Your task to perform on an android device: Clear the cart on walmart.com. Search for "jbl flip 4" on walmart.com, select the first entry, add it to the cart, then select checkout. Image 0: 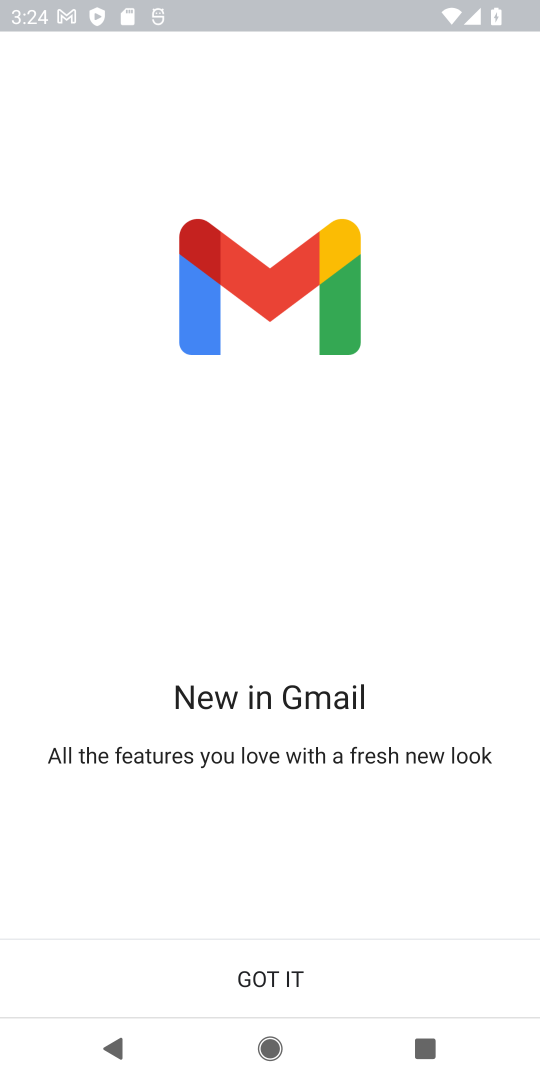
Step 0: press home button
Your task to perform on an android device: Clear the cart on walmart.com. Search for "jbl flip 4" on walmart.com, select the first entry, add it to the cart, then select checkout. Image 1: 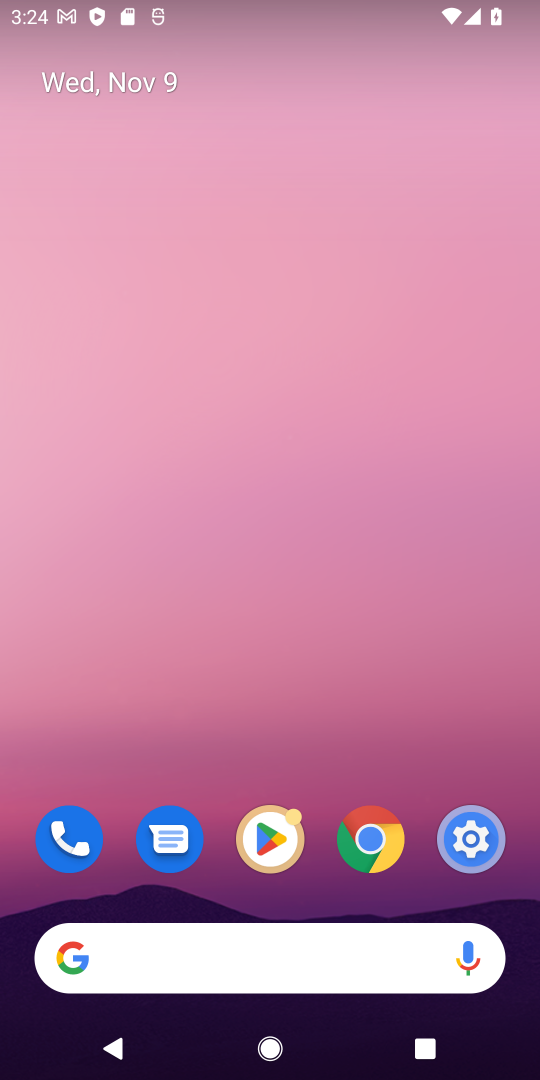
Step 1: click (247, 949)
Your task to perform on an android device: Clear the cart on walmart.com. Search for "jbl flip 4" on walmart.com, select the first entry, add it to the cart, then select checkout. Image 2: 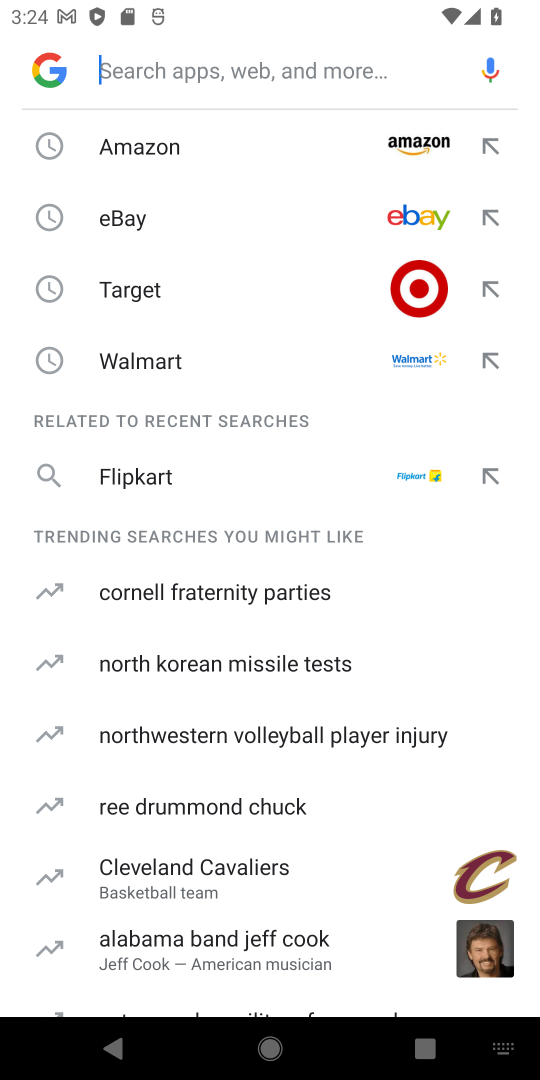
Step 2: type "walmart"
Your task to perform on an android device: Clear the cart on walmart.com. Search for "jbl flip 4" on walmart.com, select the first entry, add it to the cart, then select checkout. Image 3: 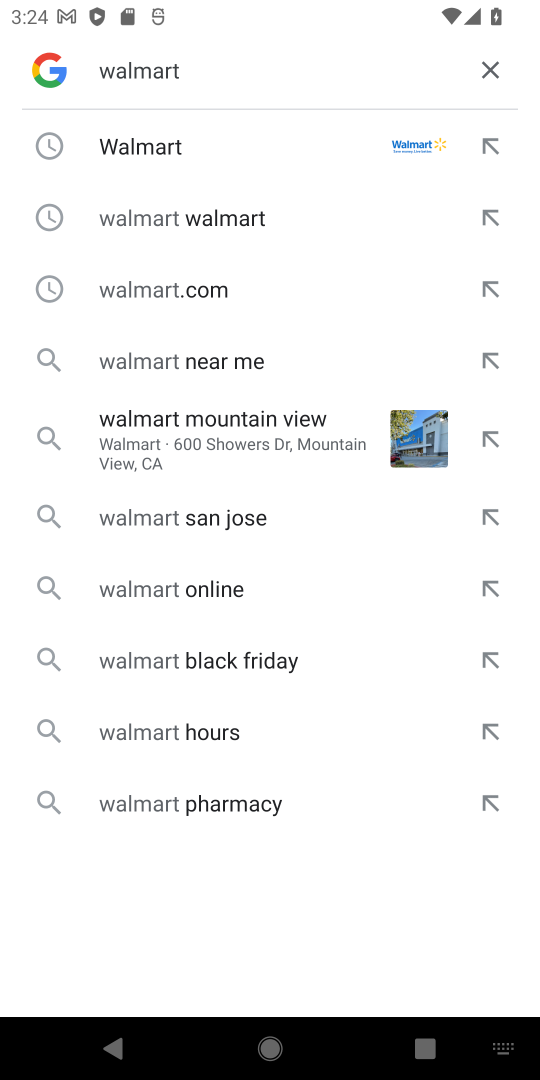
Step 3: click (194, 151)
Your task to perform on an android device: Clear the cart on walmart.com. Search for "jbl flip 4" on walmart.com, select the first entry, add it to the cart, then select checkout. Image 4: 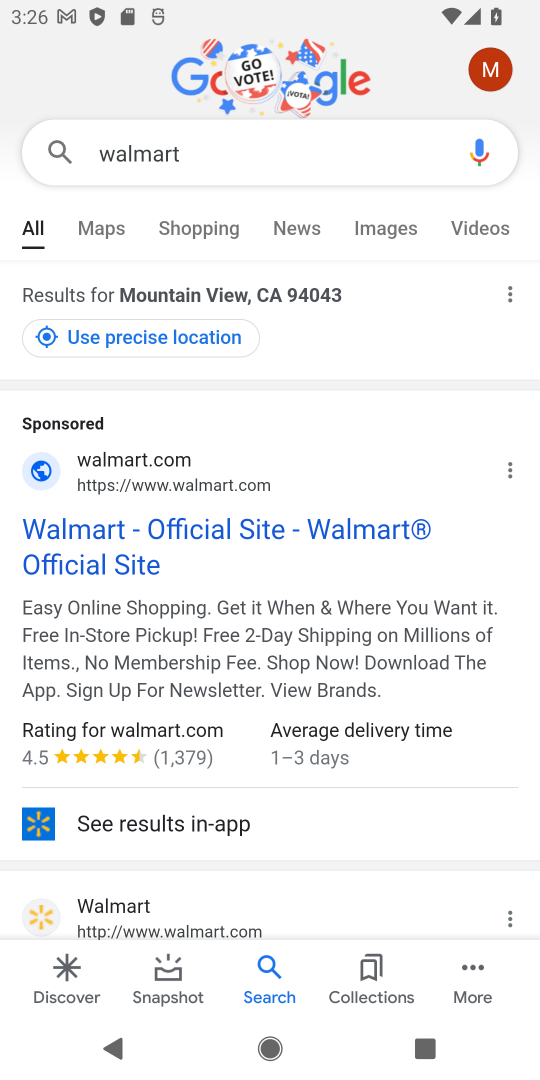
Step 4: click (182, 566)
Your task to perform on an android device: Clear the cart on walmart.com. Search for "jbl flip 4" on walmart.com, select the first entry, add it to the cart, then select checkout. Image 5: 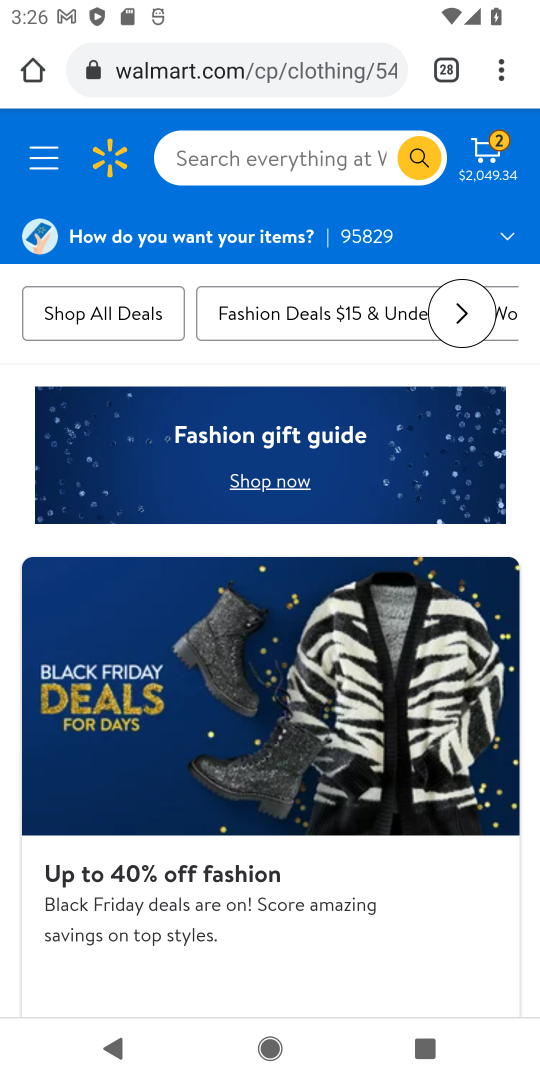
Step 5: task complete